Your task to perform on an android device: Open maps Image 0: 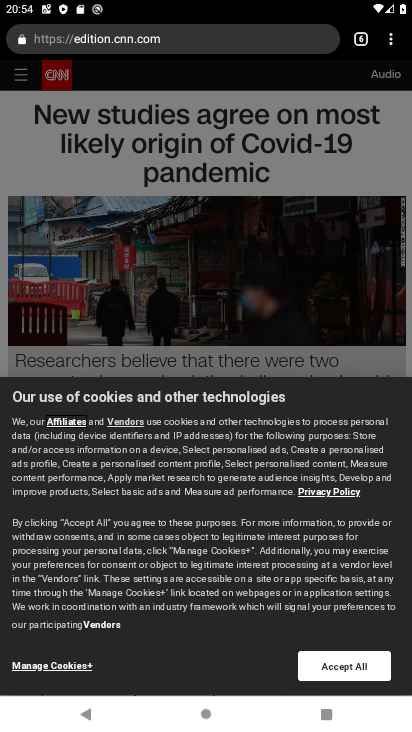
Step 0: press home button
Your task to perform on an android device: Open maps Image 1: 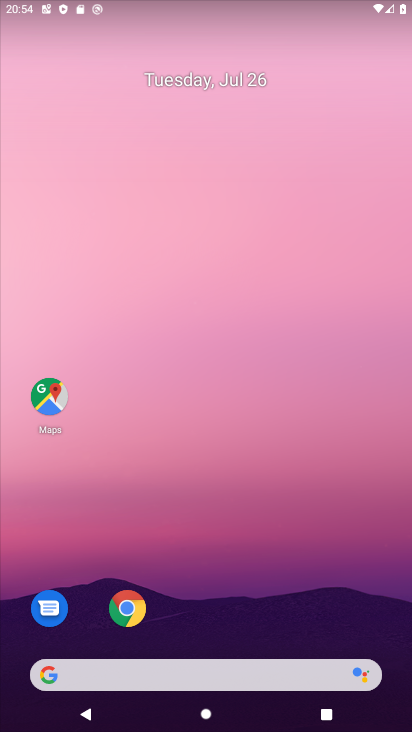
Step 1: click (55, 415)
Your task to perform on an android device: Open maps Image 2: 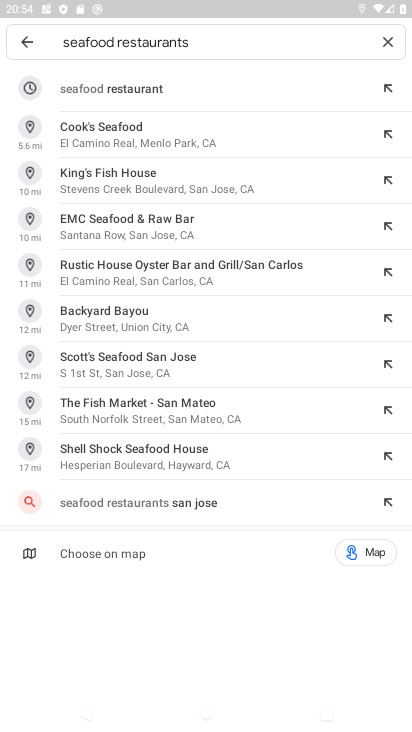
Step 2: click (24, 39)
Your task to perform on an android device: Open maps Image 3: 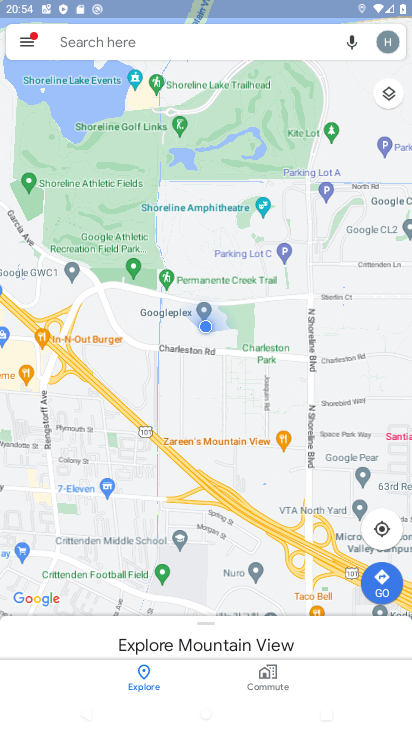
Step 3: task complete